Your task to perform on an android device: Show me productivity apps on the Play Store Image 0: 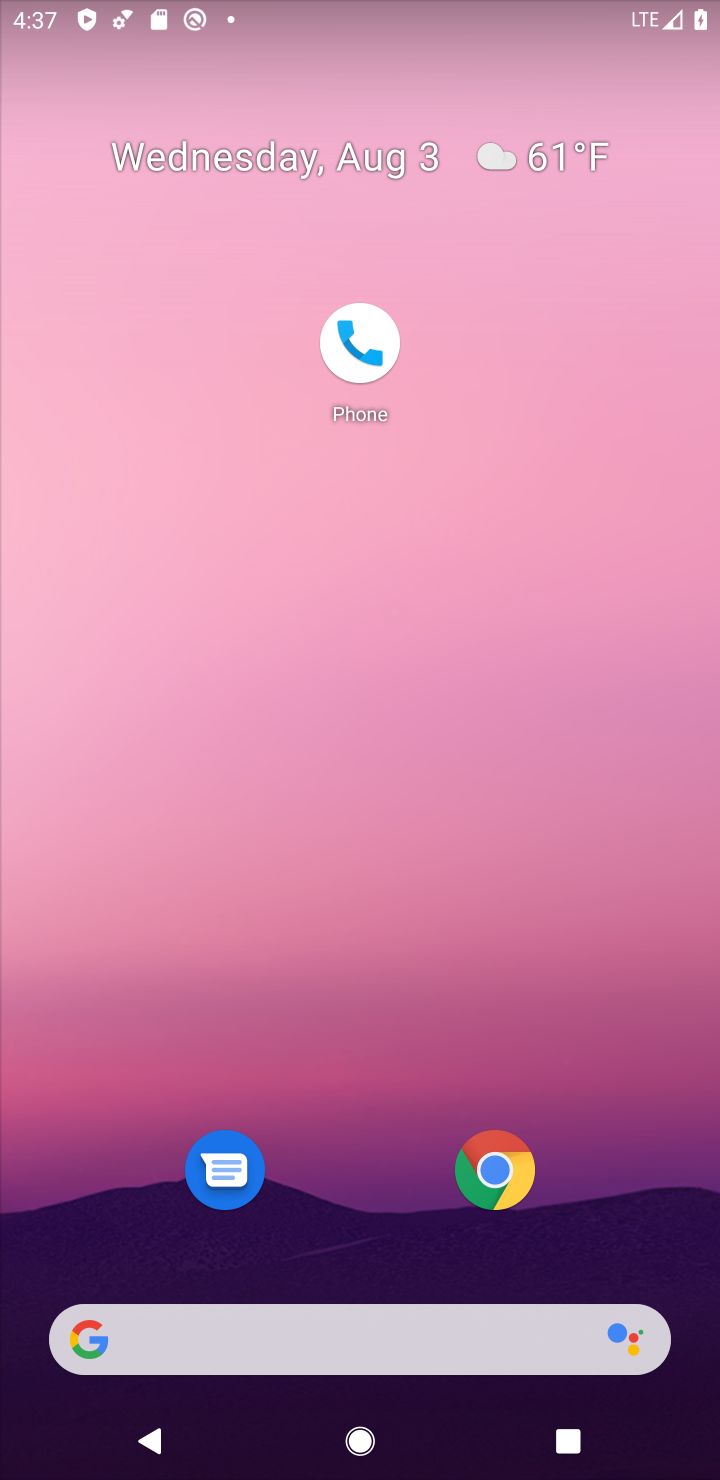
Step 0: drag from (439, 426) to (363, 128)
Your task to perform on an android device: Show me productivity apps on the Play Store Image 1: 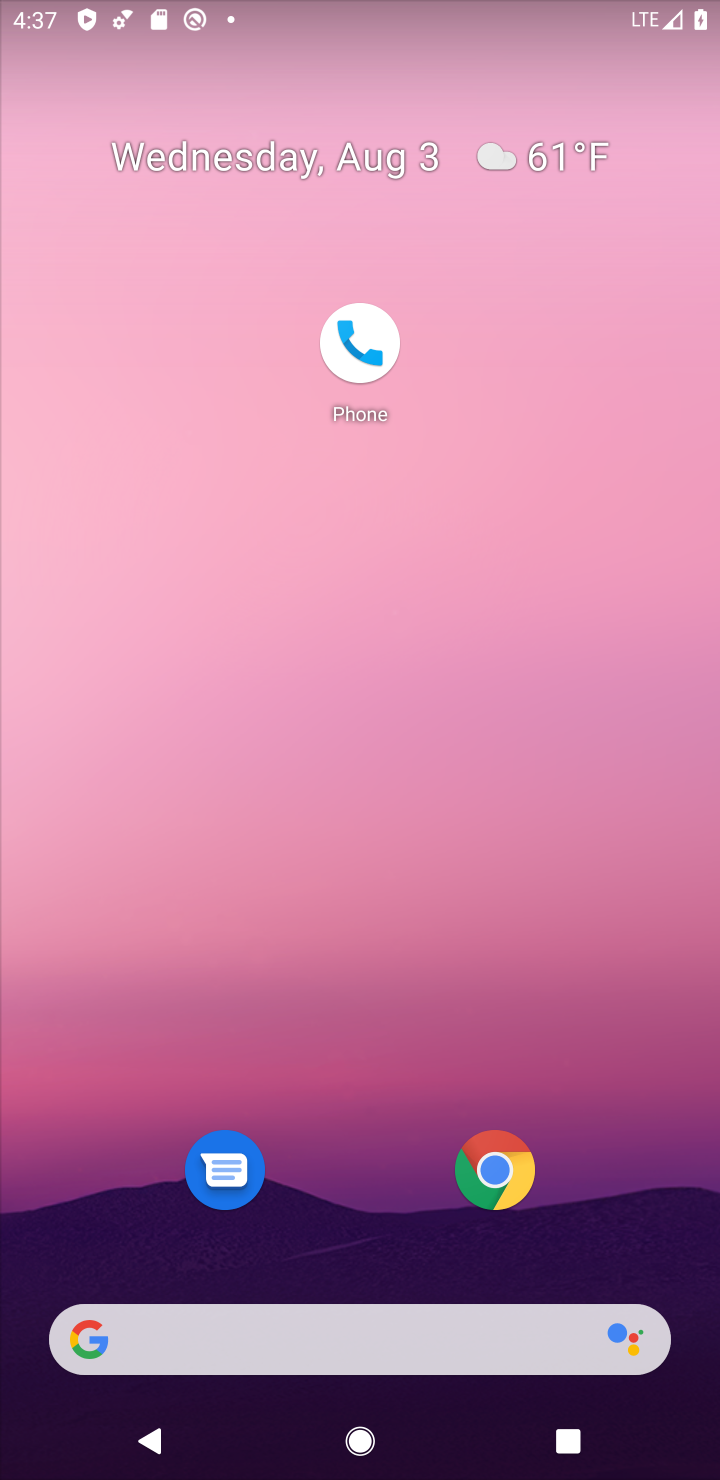
Step 1: drag from (329, 1259) to (383, 12)
Your task to perform on an android device: Show me productivity apps on the Play Store Image 2: 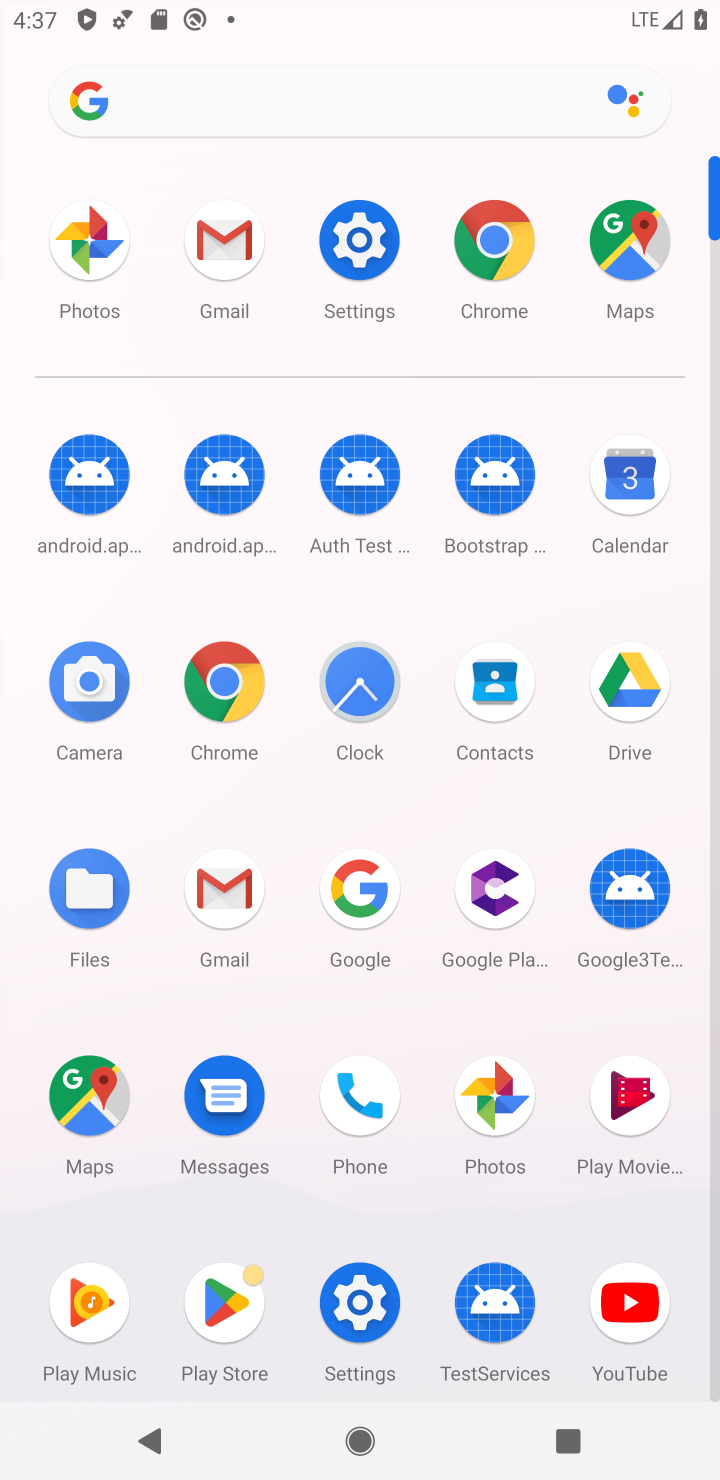
Step 2: click (251, 1301)
Your task to perform on an android device: Show me productivity apps on the Play Store Image 3: 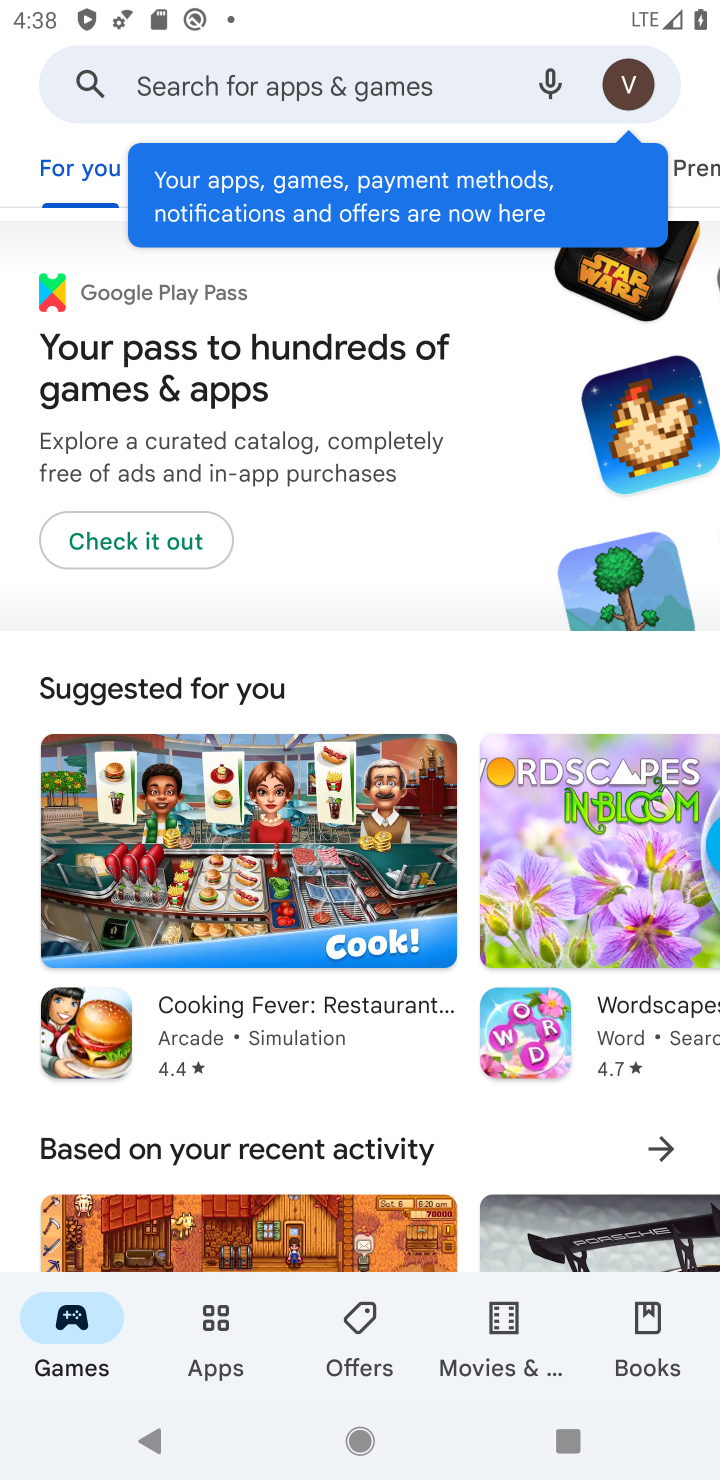
Step 3: click (224, 1359)
Your task to perform on an android device: Show me productivity apps on the Play Store Image 4: 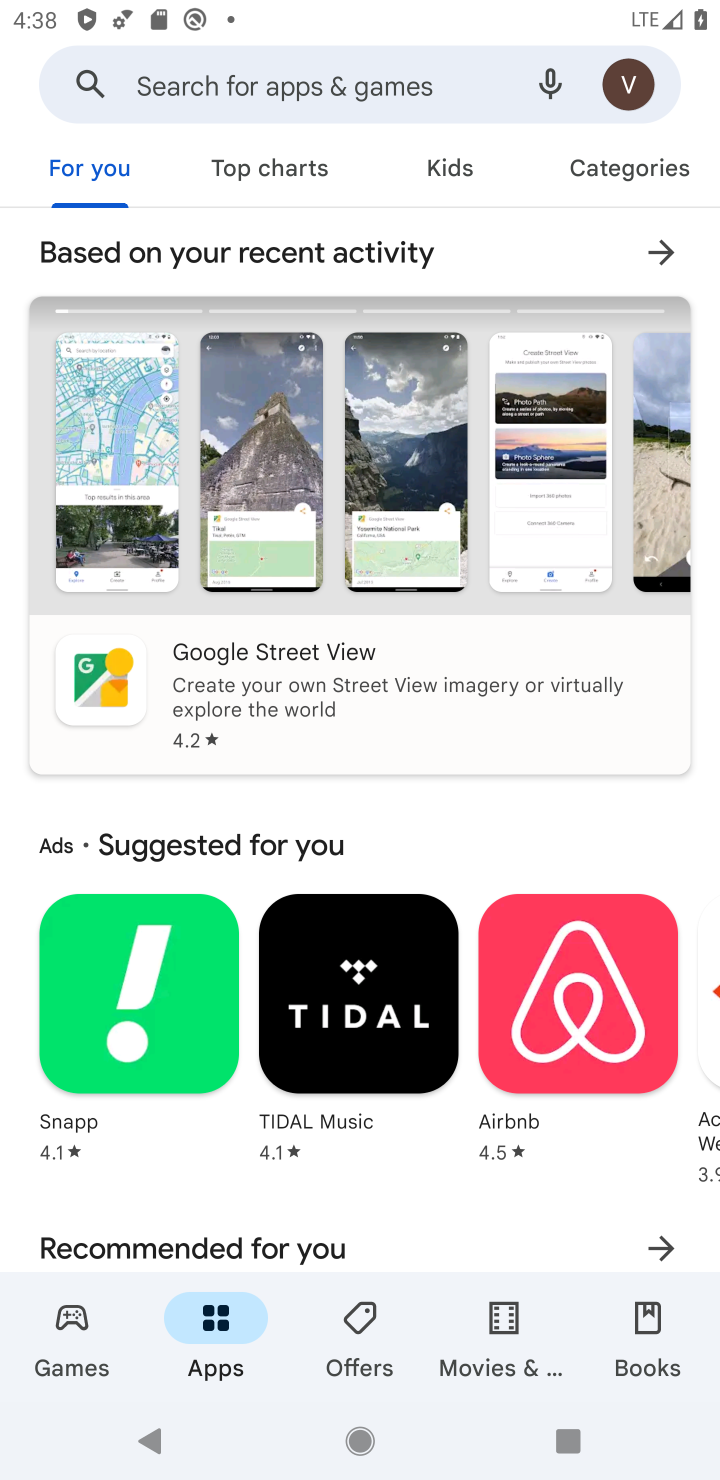
Step 4: click (657, 176)
Your task to perform on an android device: Show me productivity apps on the Play Store Image 5: 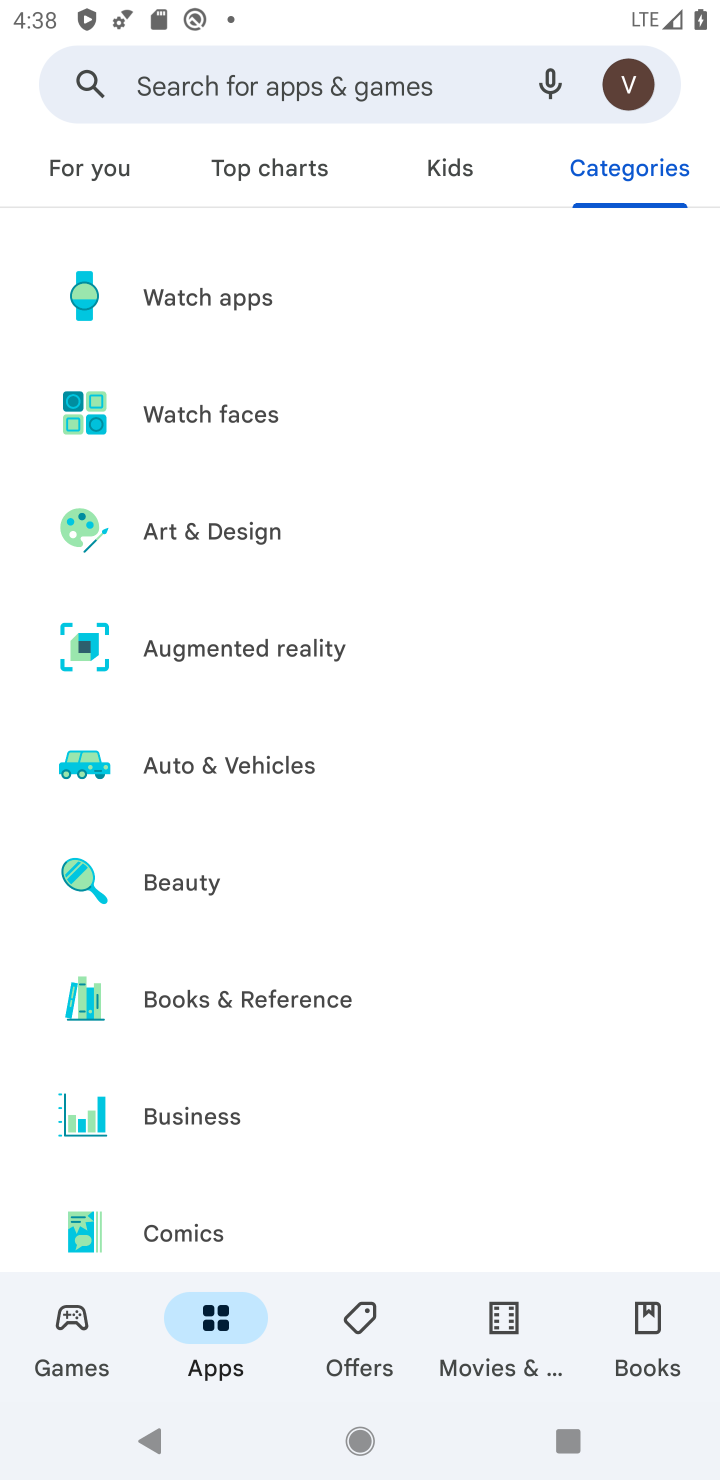
Step 5: drag from (191, 1129) to (271, 97)
Your task to perform on an android device: Show me productivity apps on the Play Store Image 6: 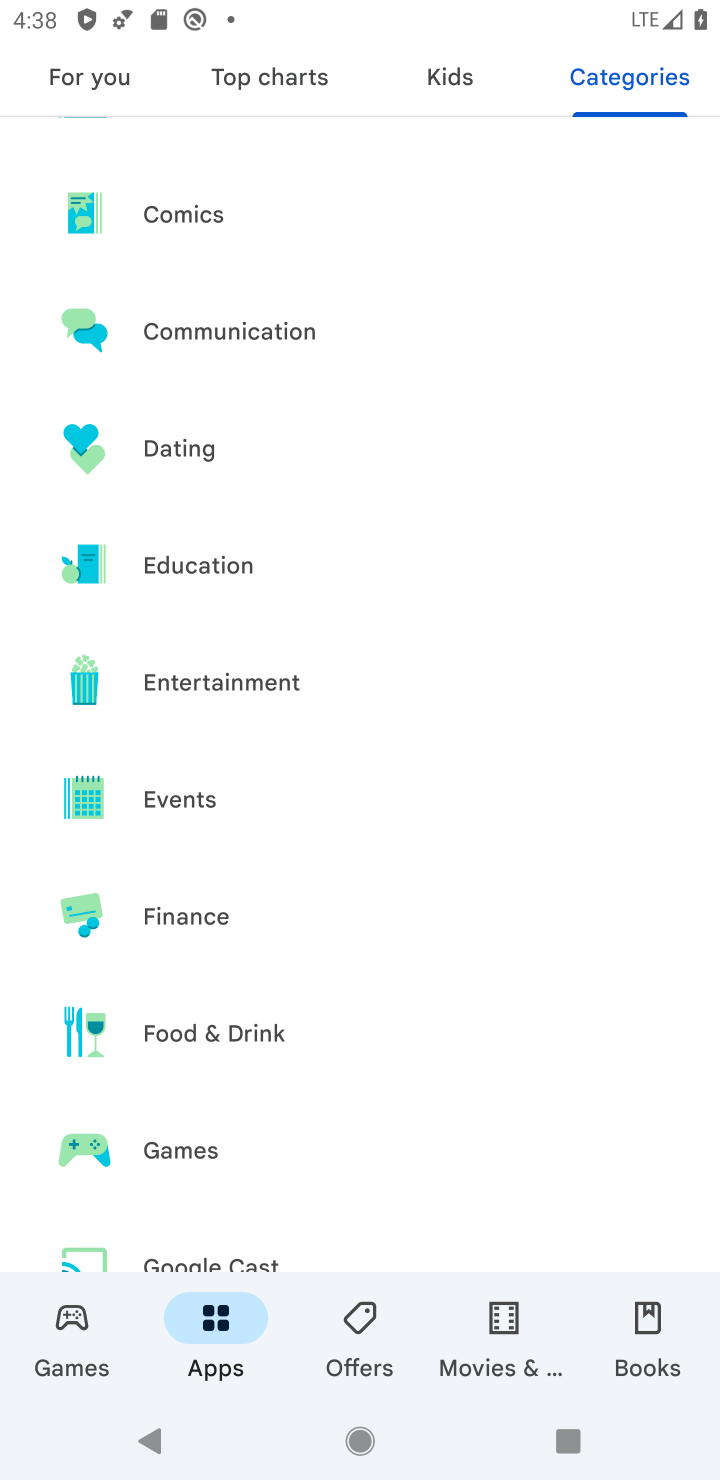
Step 6: drag from (217, 975) to (339, 356)
Your task to perform on an android device: Show me productivity apps on the Play Store Image 7: 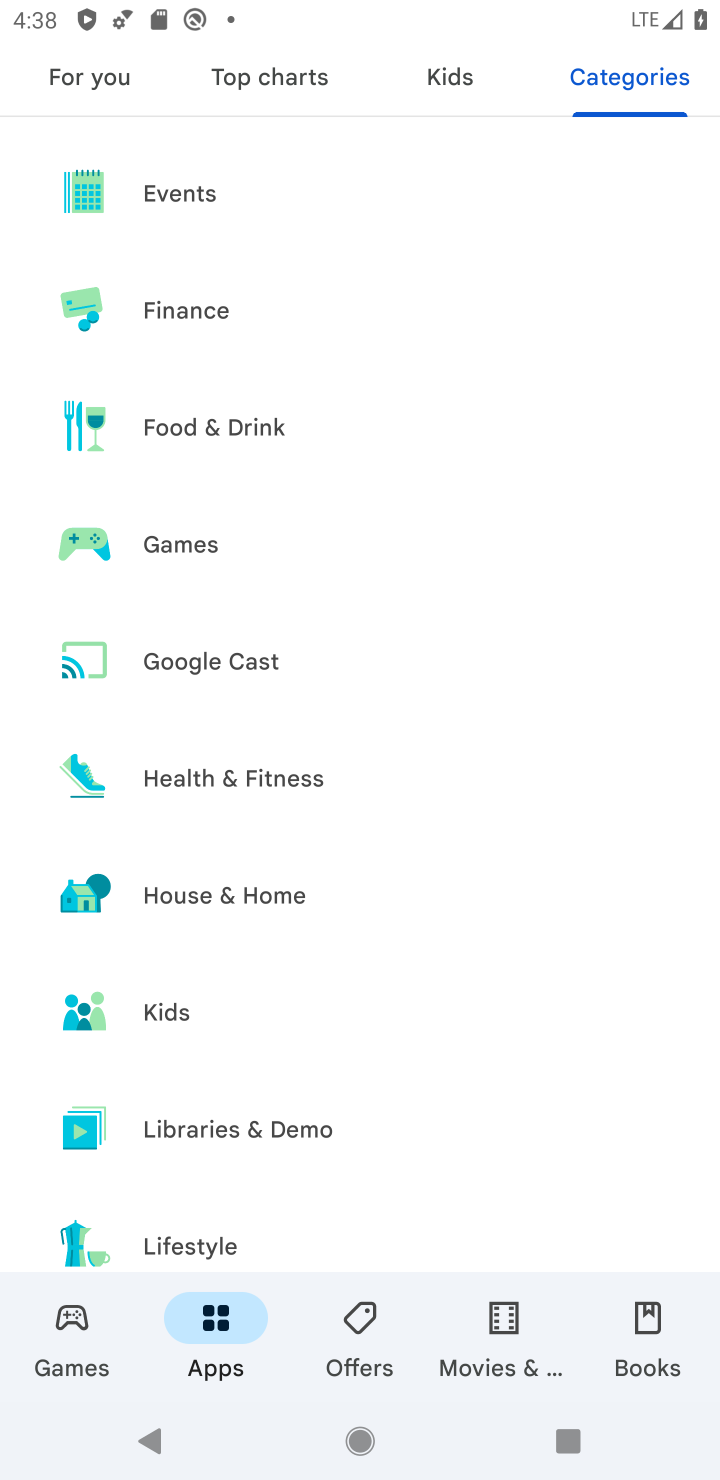
Step 7: drag from (224, 1027) to (474, 80)
Your task to perform on an android device: Show me productivity apps on the Play Store Image 8: 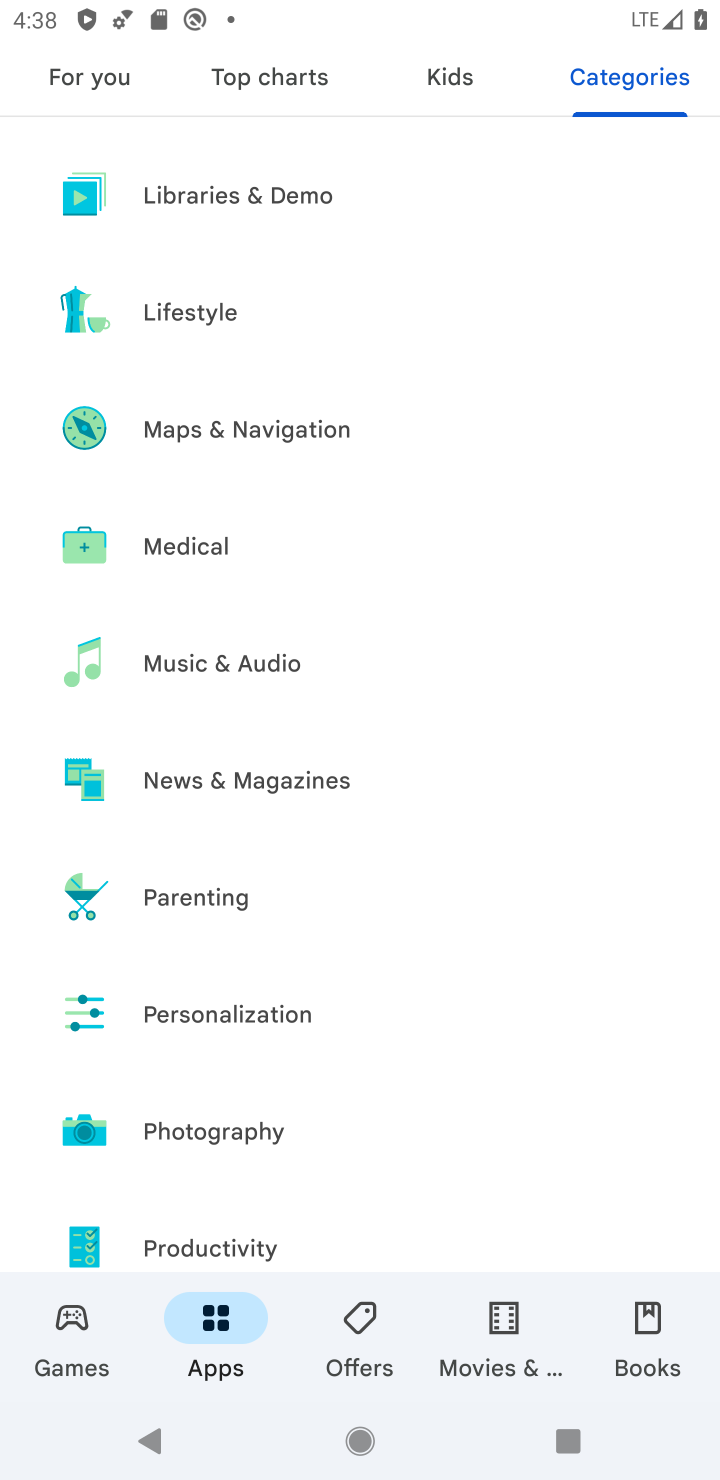
Step 8: drag from (253, 825) to (249, 405)
Your task to perform on an android device: Show me productivity apps on the Play Store Image 9: 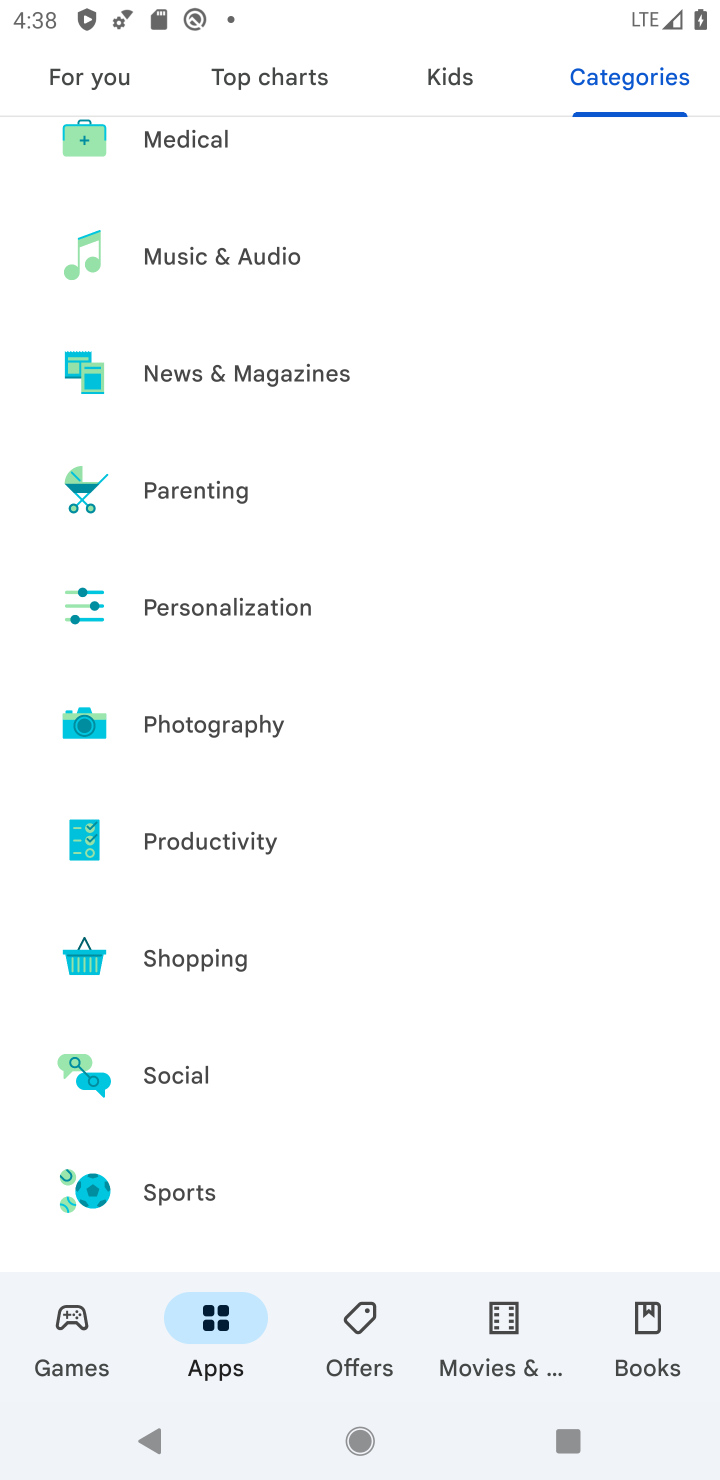
Step 9: click (180, 842)
Your task to perform on an android device: Show me productivity apps on the Play Store Image 10: 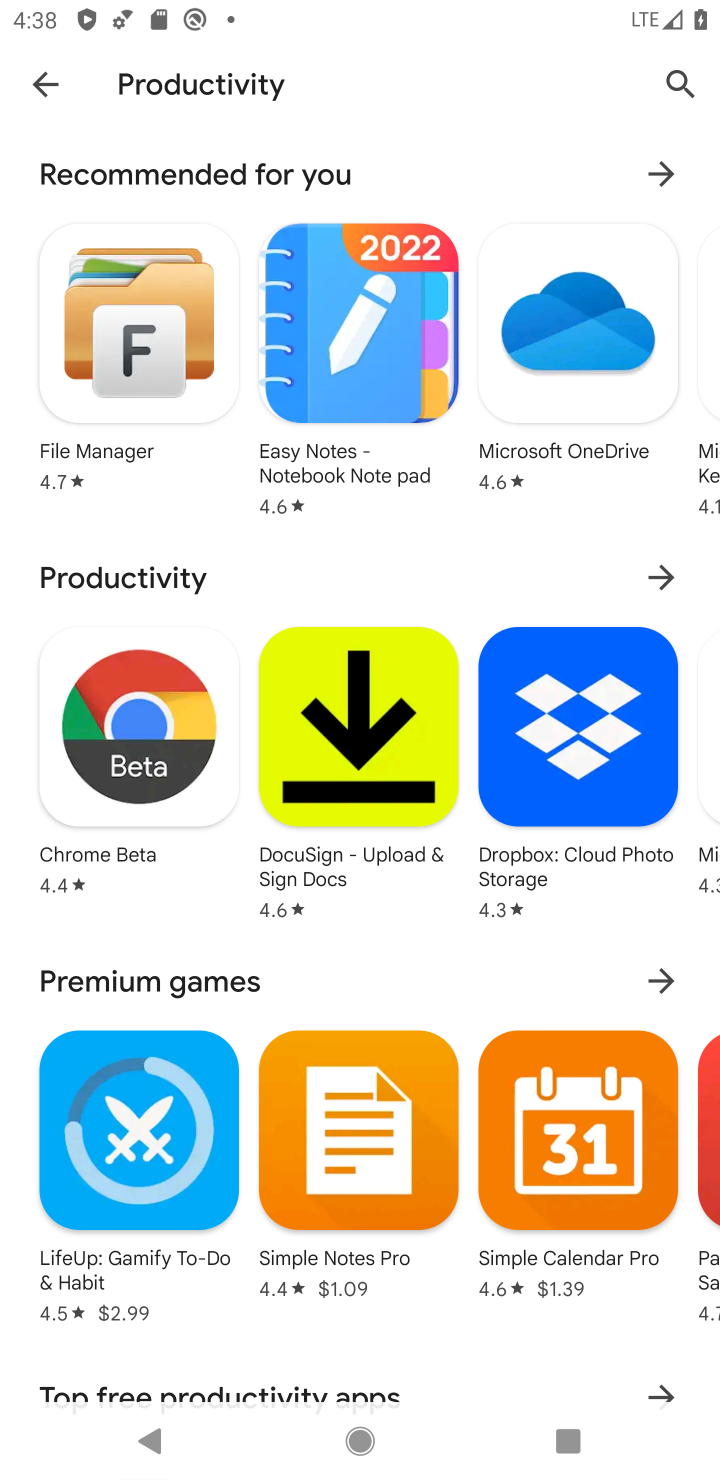
Step 10: task complete